Your task to perform on an android device: Open Reddit.com Image 0: 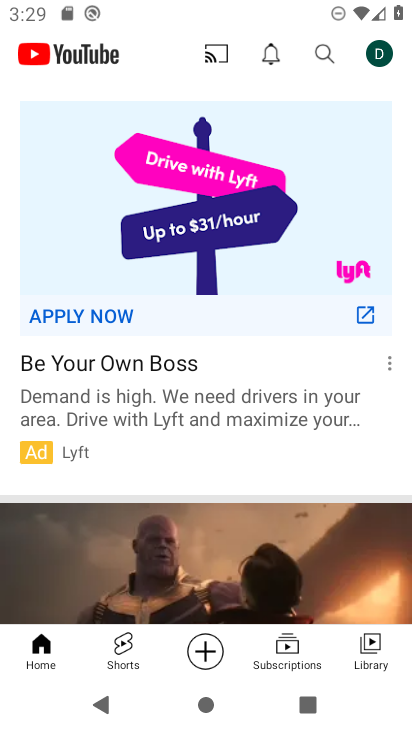
Step 0: press home button
Your task to perform on an android device: Open Reddit.com Image 1: 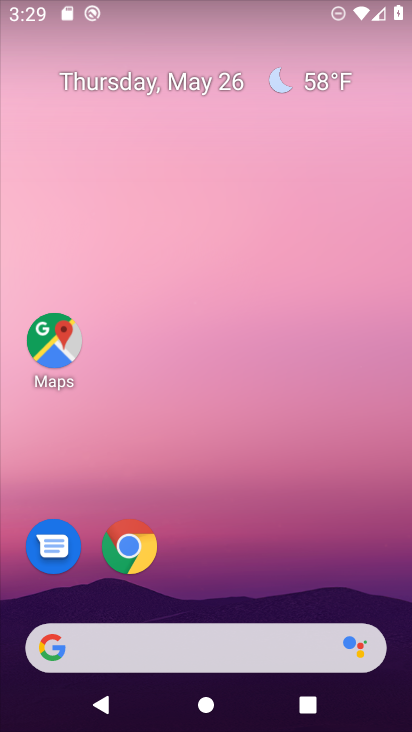
Step 1: click (129, 537)
Your task to perform on an android device: Open Reddit.com Image 2: 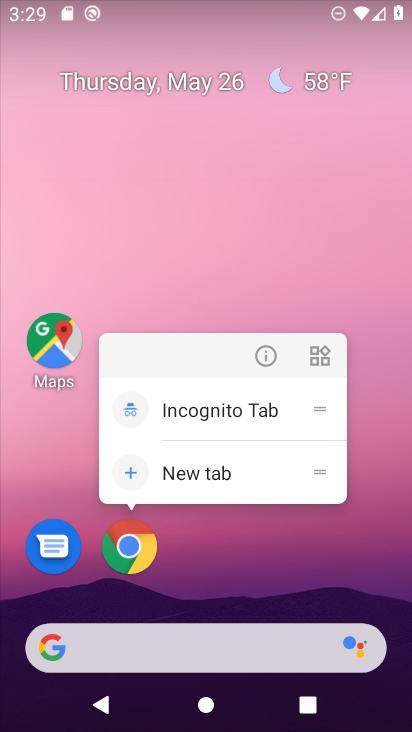
Step 2: click (123, 540)
Your task to perform on an android device: Open Reddit.com Image 3: 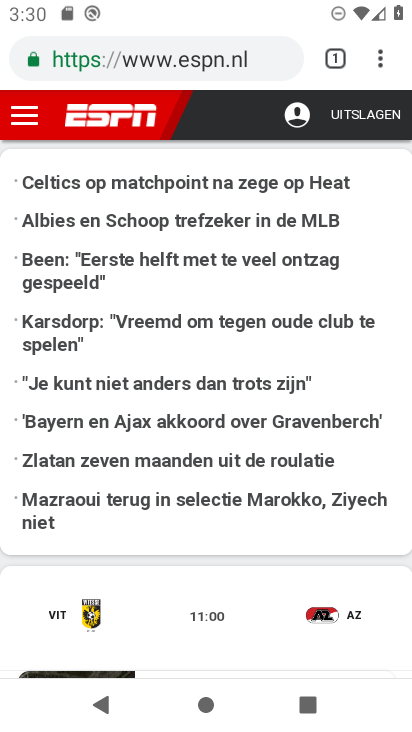
Step 3: click (334, 51)
Your task to perform on an android device: Open Reddit.com Image 4: 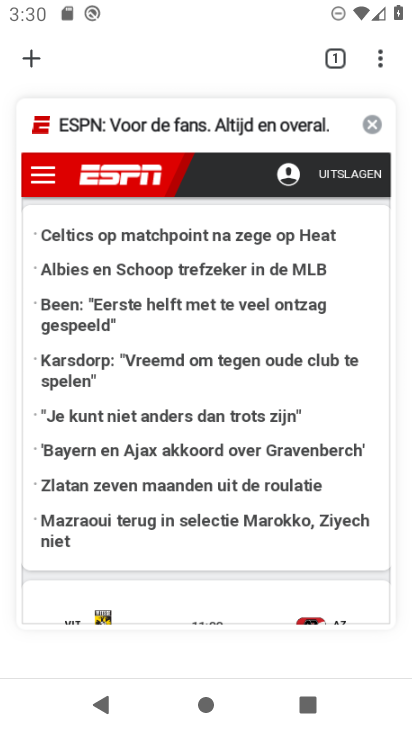
Step 4: click (368, 121)
Your task to perform on an android device: Open Reddit.com Image 5: 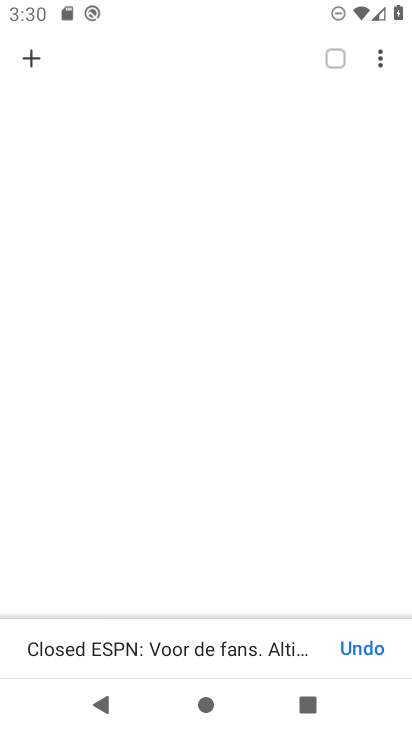
Step 5: click (42, 61)
Your task to perform on an android device: Open Reddit.com Image 6: 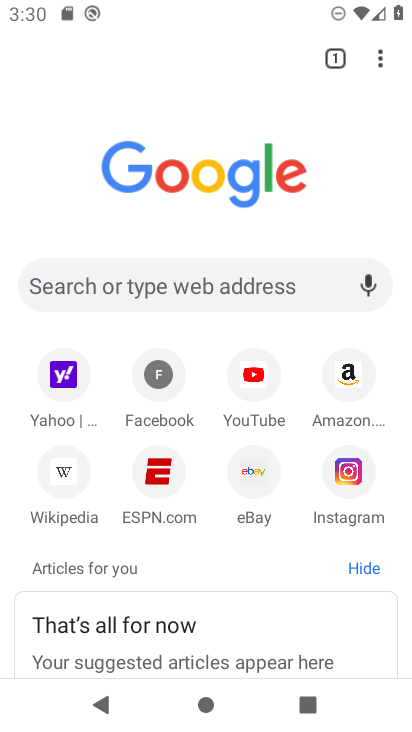
Step 6: click (114, 280)
Your task to perform on an android device: Open Reddit.com Image 7: 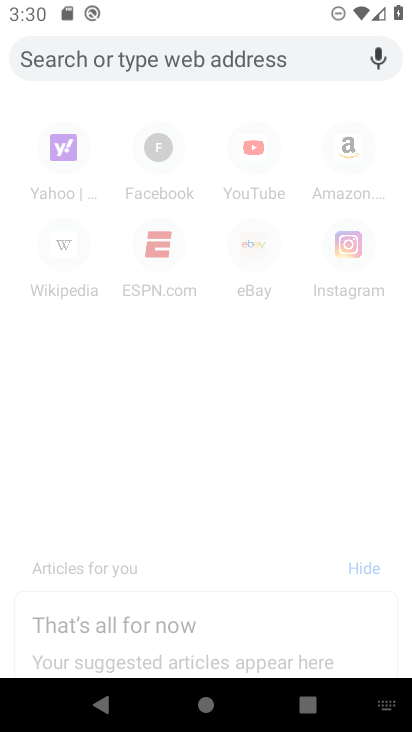
Step 7: type "reddit"
Your task to perform on an android device: Open Reddit.com Image 8: 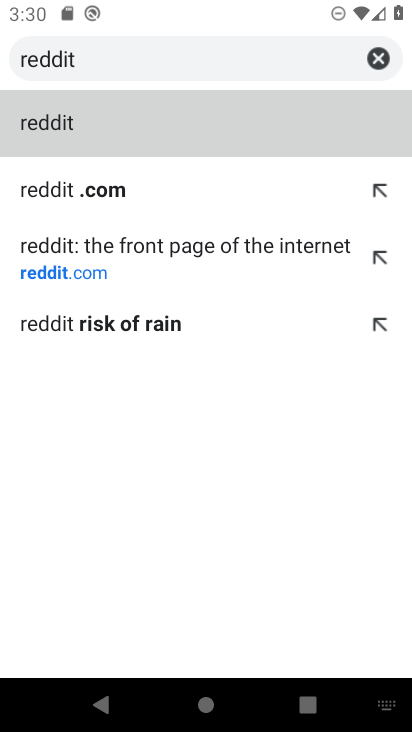
Step 8: click (127, 260)
Your task to perform on an android device: Open Reddit.com Image 9: 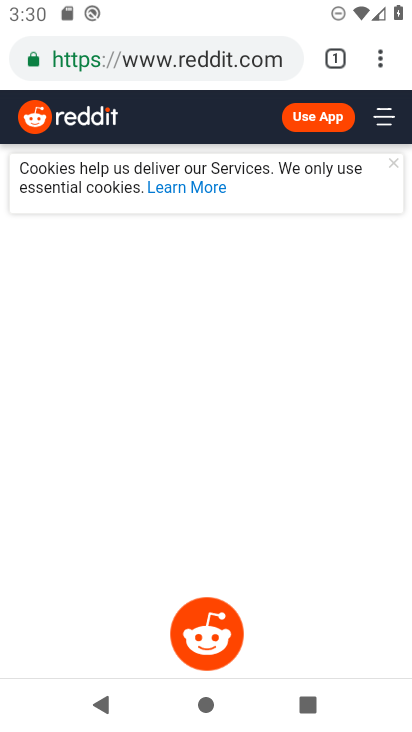
Step 9: task complete